Your task to perform on an android device: Go to privacy settings Image 0: 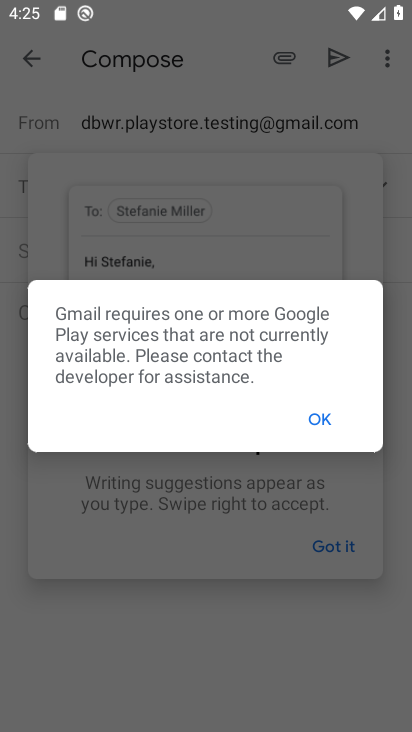
Step 0: press home button
Your task to perform on an android device: Go to privacy settings Image 1: 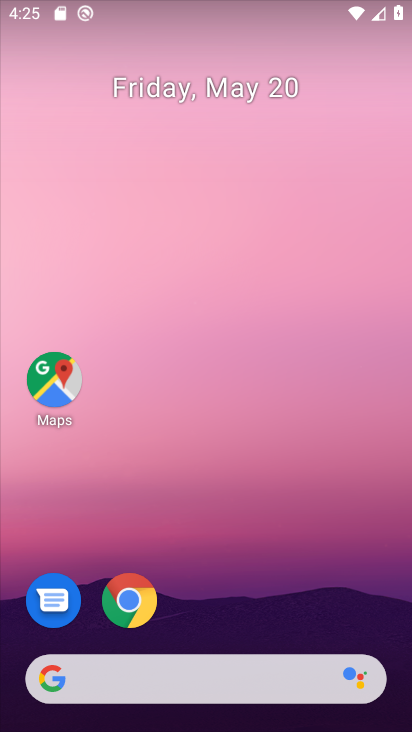
Step 1: drag from (285, 522) to (188, 91)
Your task to perform on an android device: Go to privacy settings Image 2: 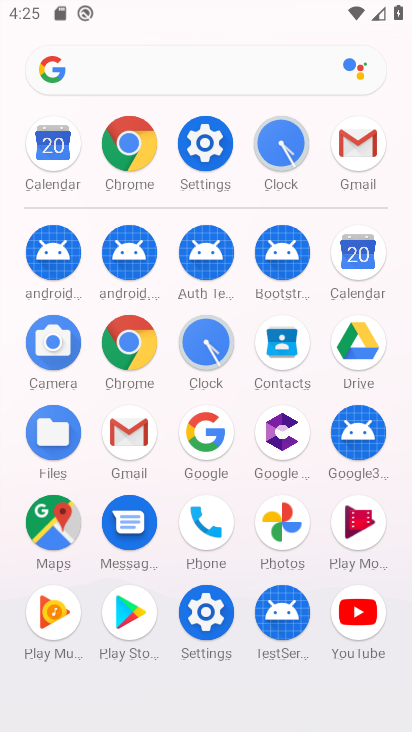
Step 2: click (196, 139)
Your task to perform on an android device: Go to privacy settings Image 3: 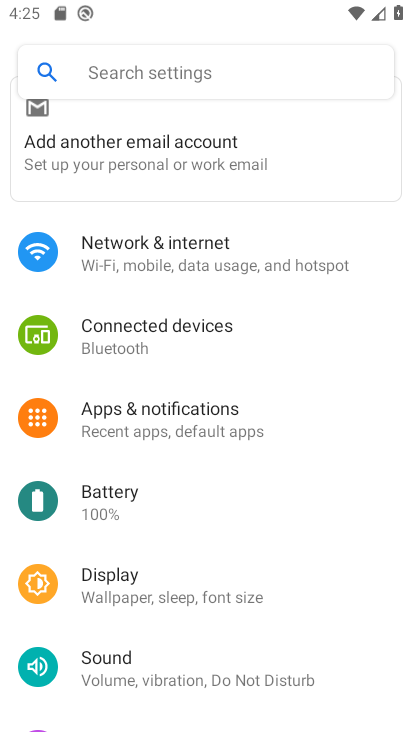
Step 3: drag from (224, 634) to (230, 163)
Your task to perform on an android device: Go to privacy settings Image 4: 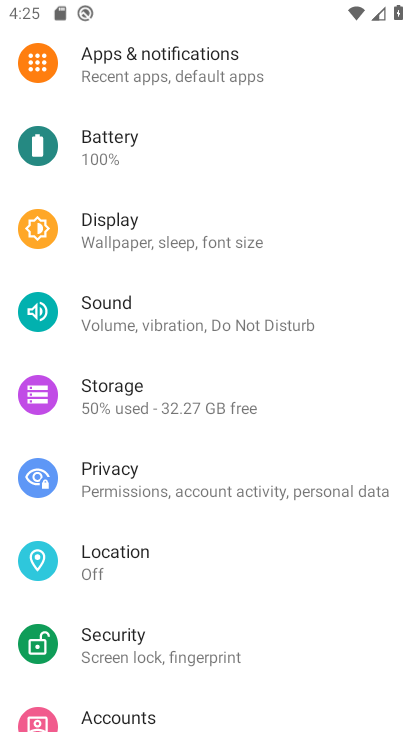
Step 4: click (206, 491)
Your task to perform on an android device: Go to privacy settings Image 5: 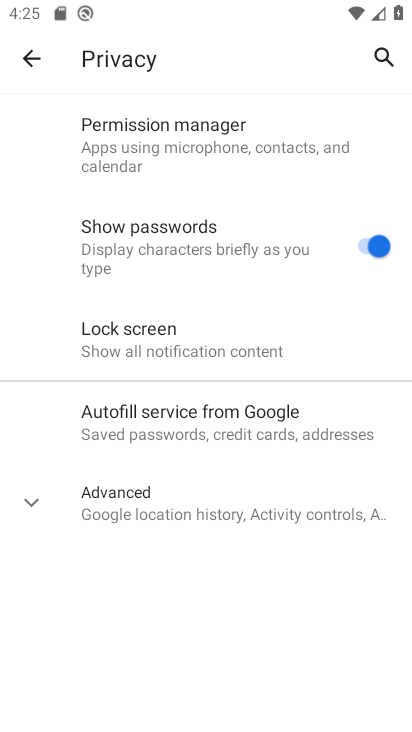
Step 5: task complete